Your task to perform on an android device: Do I have any events tomorrow? Image 0: 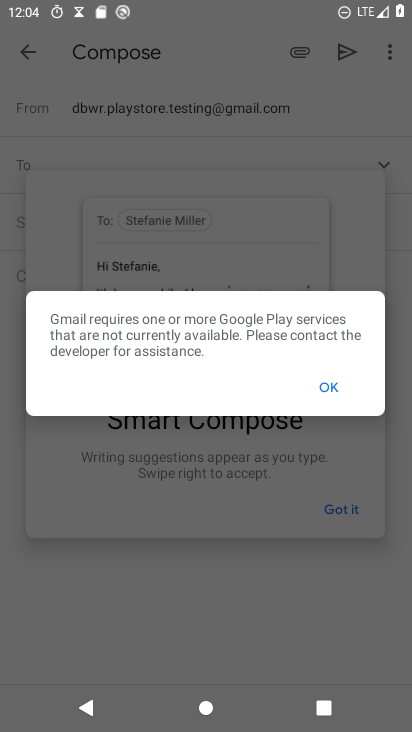
Step 0: press home button
Your task to perform on an android device: Do I have any events tomorrow? Image 1: 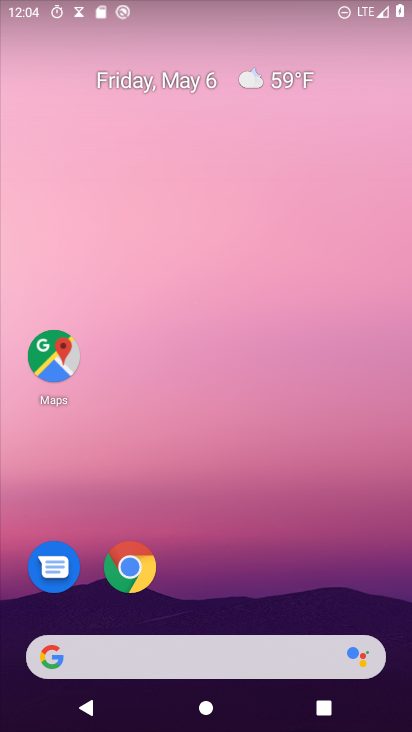
Step 1: drag from (339, 609) to (290, 3)
Your task to perform on an android device: Do I have any events tomorrow? Image 2: 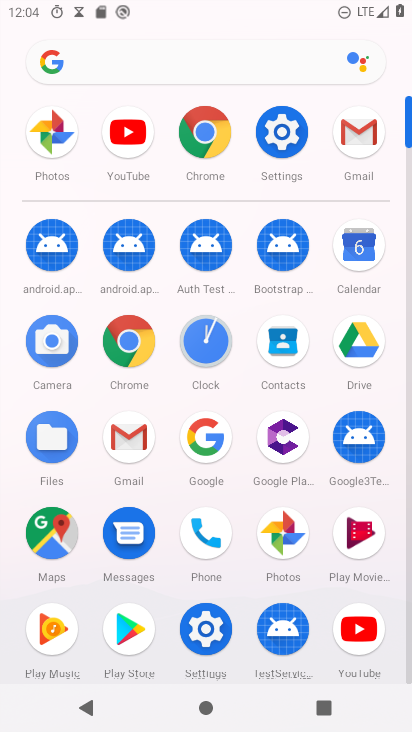
Step 2: click (366, 247)
Your task to perform on an android device: Do I have any events tomorrow? Image 3: 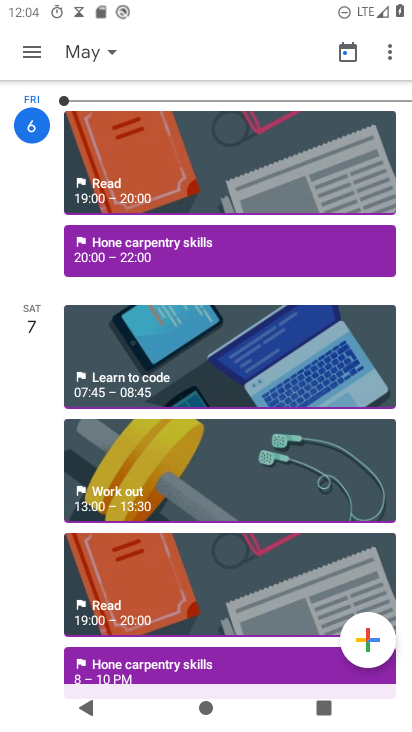
Step 3: click (170, 259)
Your task to perform on an android device: Do I have any events tomorrow? Image 4: 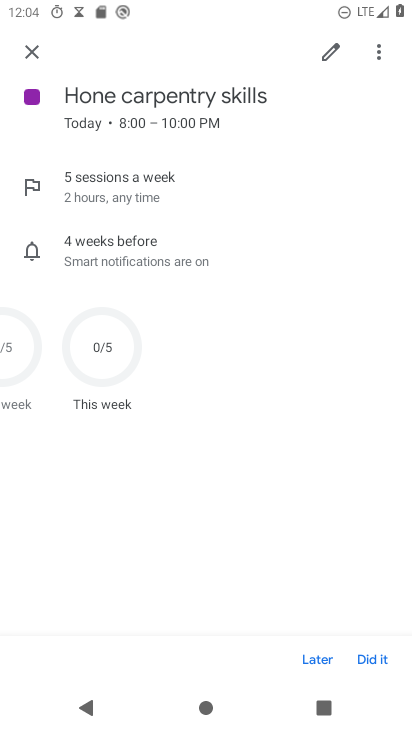
Step 4: task complete